Your task to perform on an android device: Search for Mexican restaurants on Maps Image 0: 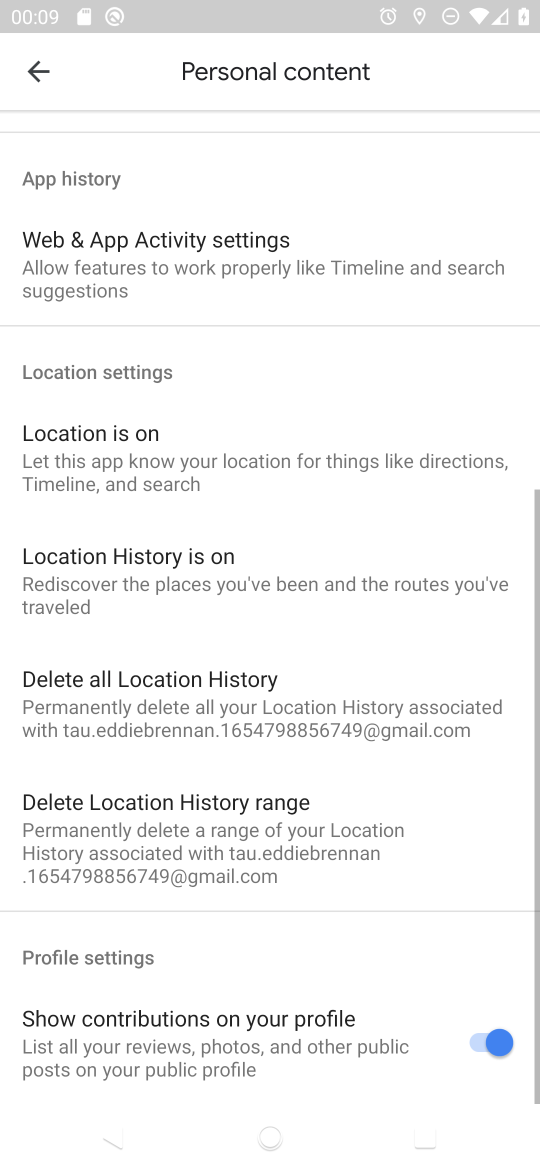
Step 0: press home button
Your task to perform on an android device: Search for Mexican restaurants on Maps Image 1: 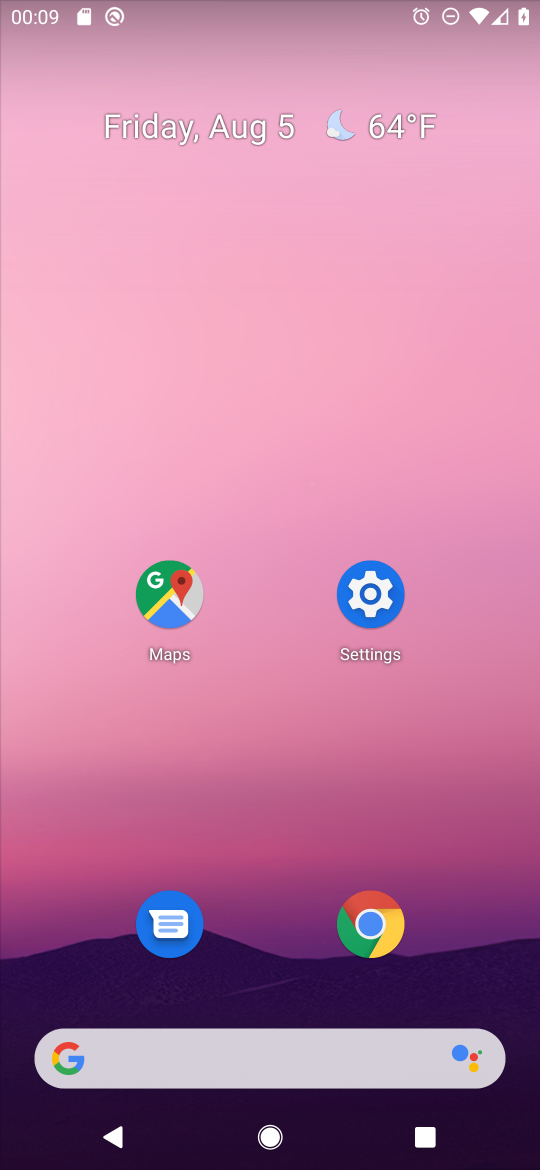
Step 1: click (182, 584)
Your task to perform on an android device: Search for Mexican restaurants on Maps Image 2: 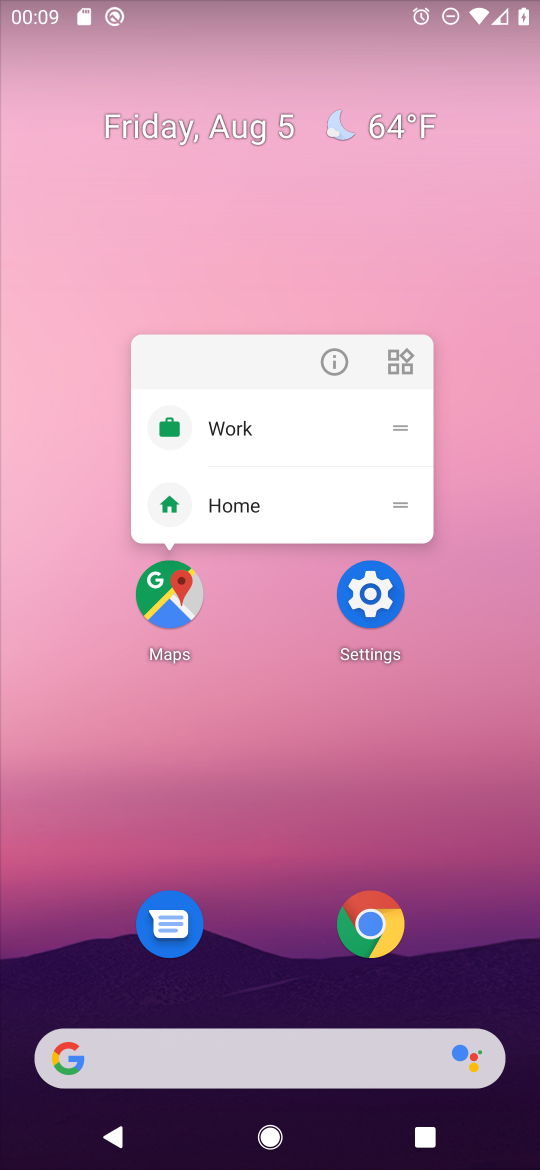
Step 2: click (166, 599)
Your task to perform on an android device: Search for Mexican restaurants on Maps Image 3: 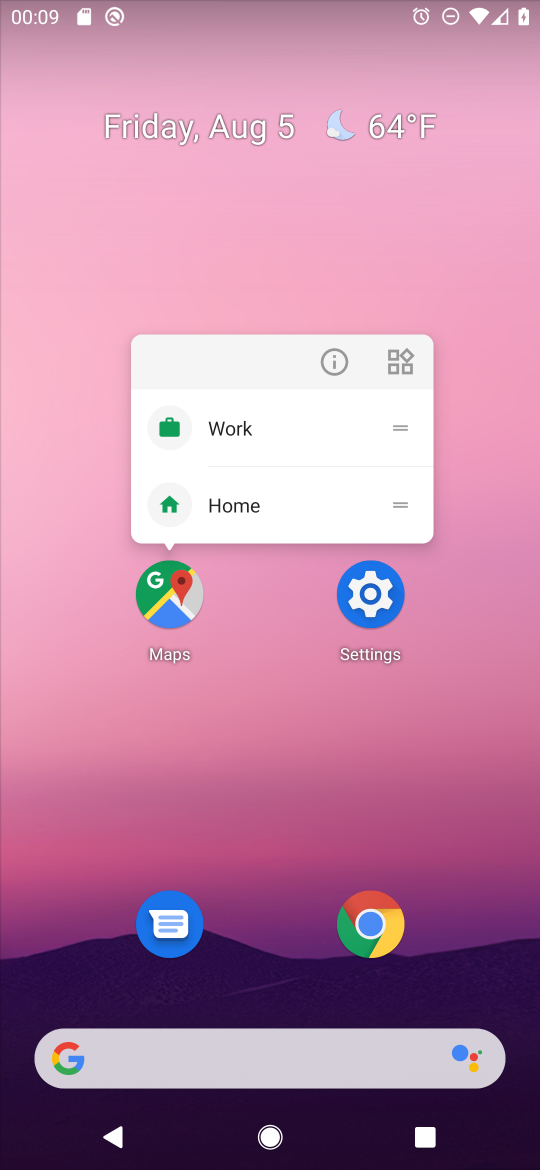
Step 3: click (166, 603)
Your task to perform on an android device: Search for Mexican restaurants on Maps Image 4: 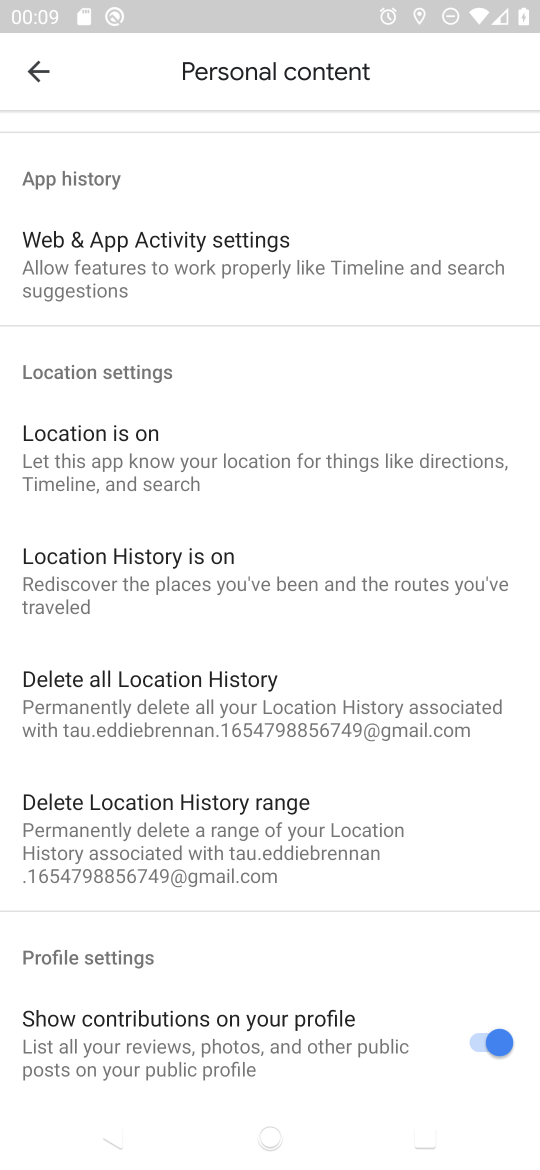
Step 4: click (31, 72)
Your task to perform on an android device: Search for Mexican restaurants on Maps Image 5: 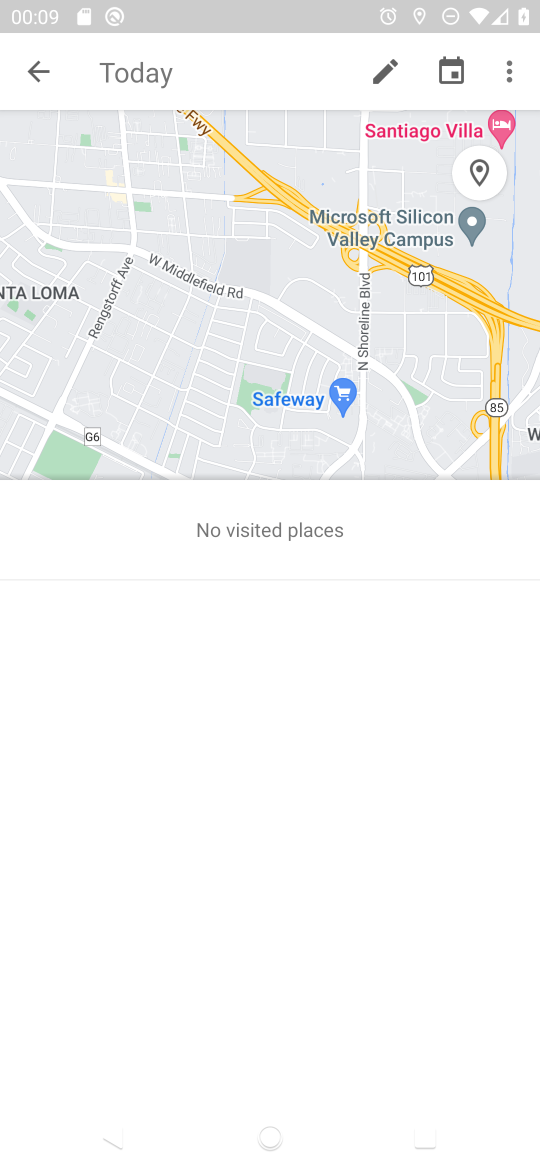
Step 5: click (42, 76)
Your task to perform on an android device: Search for Mexican restaurants on Maps Image 6: 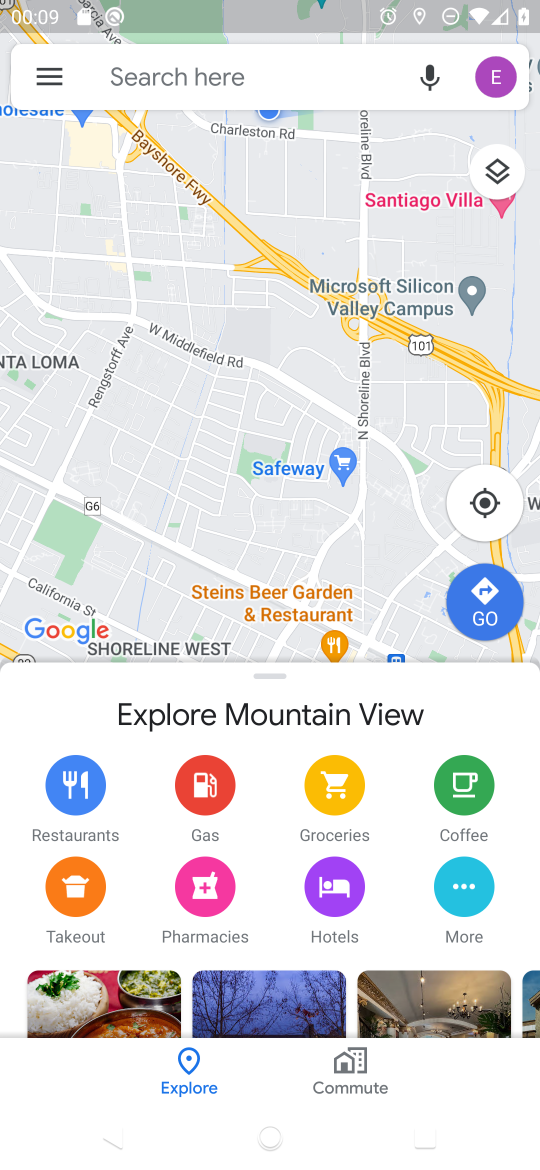
Step 6: click (279, 74)
Your task to perform on an android device: Search for Mexican restaurants on Maps Image 7: 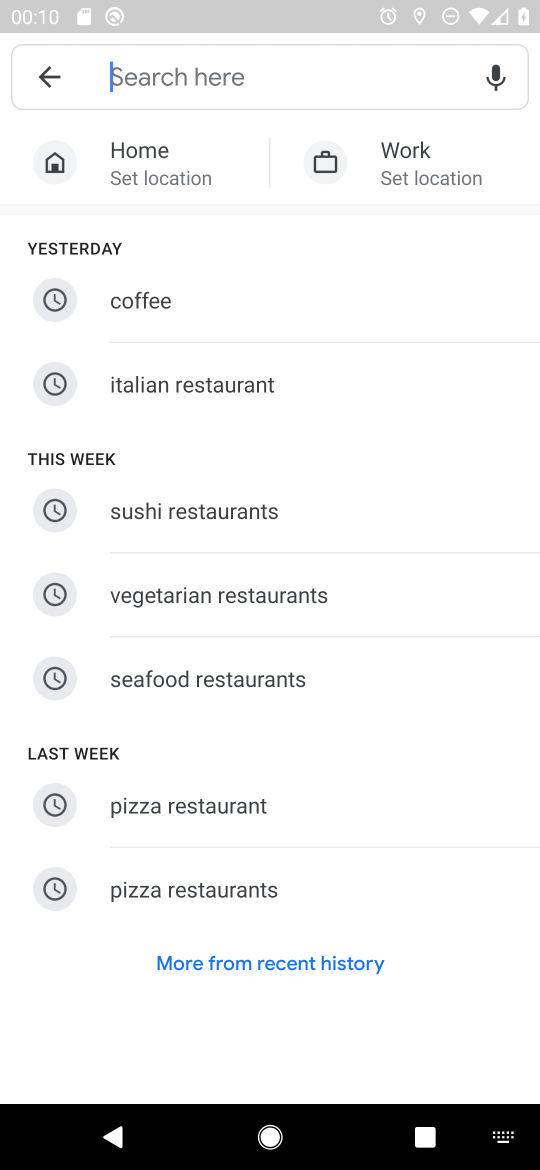
Step 7: type "Mexican restaurants"
Your task to perform on an android device: Search for Mexican restaurants on Maps Image 8: 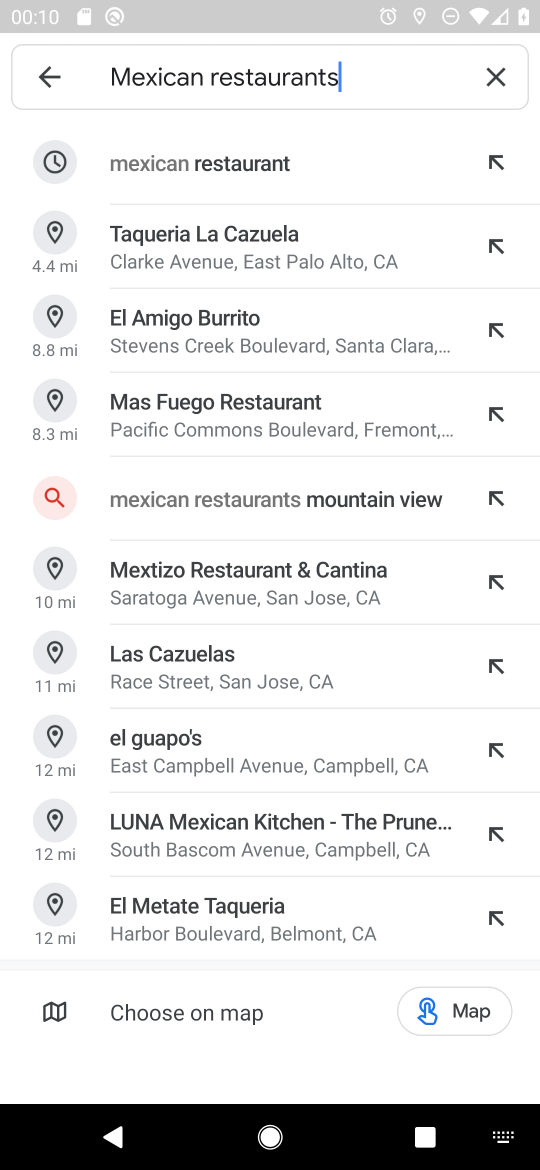
Step 8: click (196, 171)
Your task to perform on an android device: Search for Mexican restaurants on Maps Image 9: 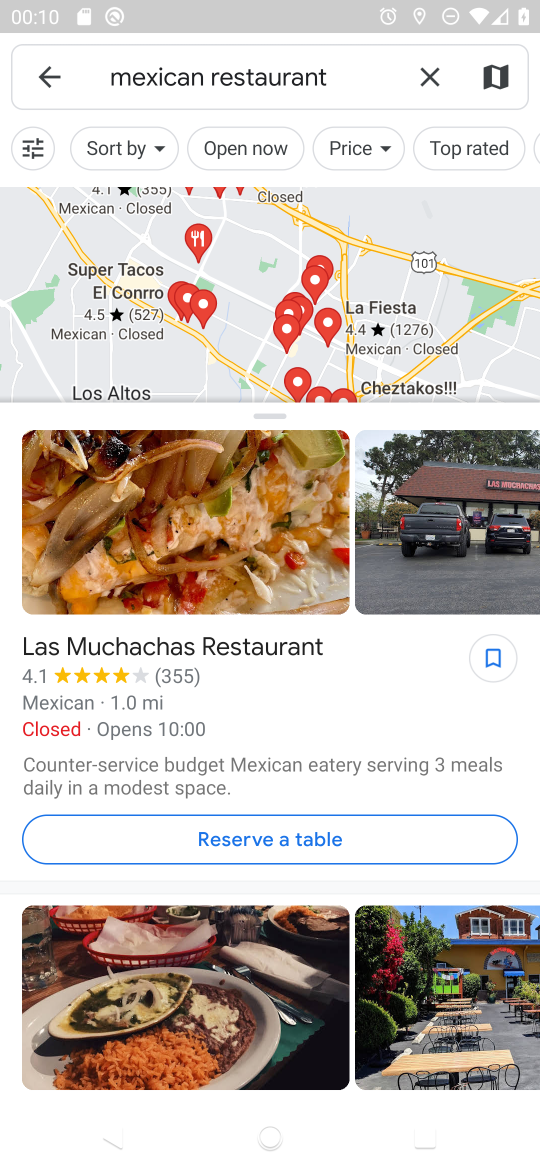
Step 9: task complete